Your task to perform on an android device: set the timer Image 0: 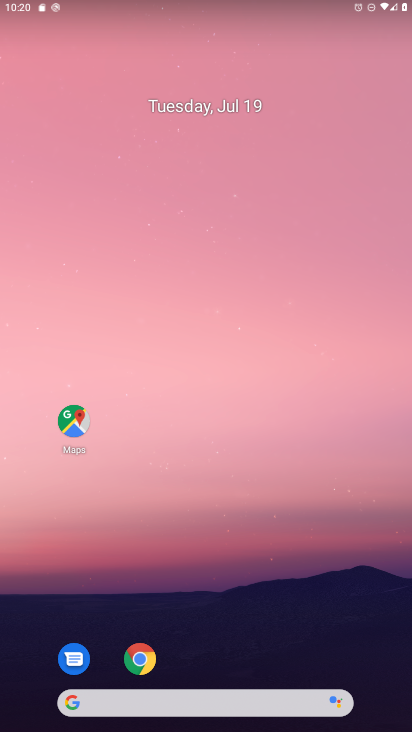
Step 0: drag from (183, 325) to (176, 164)
Your task to perform on an android device: set the timer Image 1: 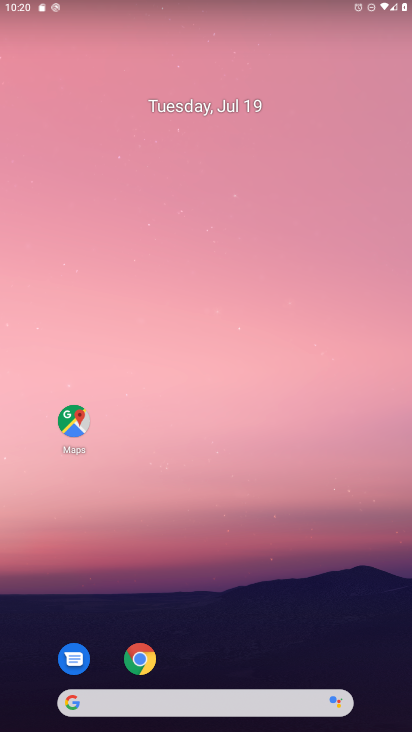
Step 1: drag from (252, 587) to (259, 163)
Your task to perform on an android device: set the timer Image 2: 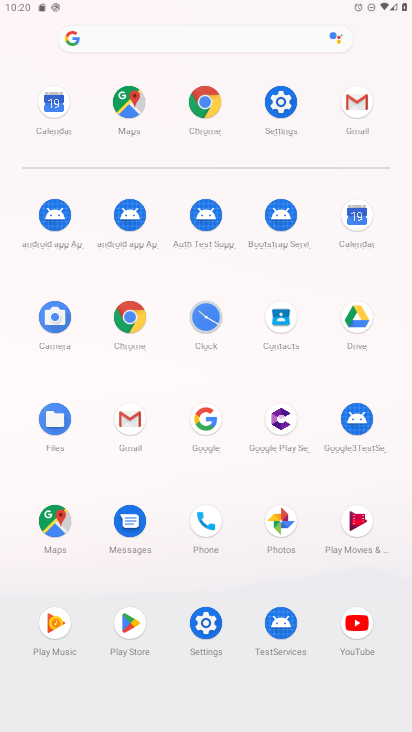
Step 2: click (199, 320)
Your task to perform on an android device: set the timer Image 3: 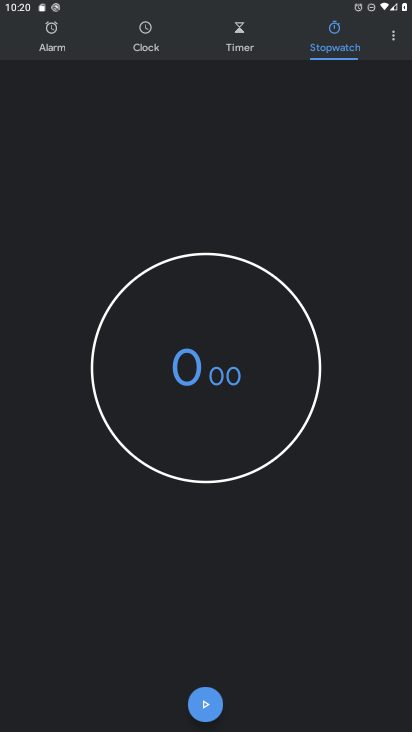
Step 3: click (245, 20)
Your task to perform on an android device: set the timer Image 4: 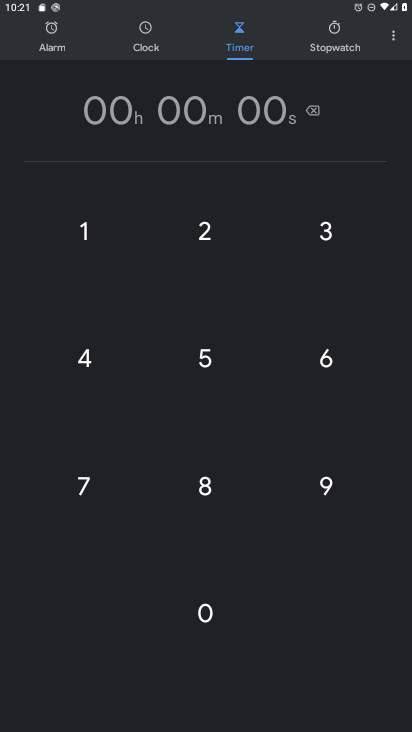
Step 4: click (224, 101)
Your task to perform on an android device: set the timer Image 5: 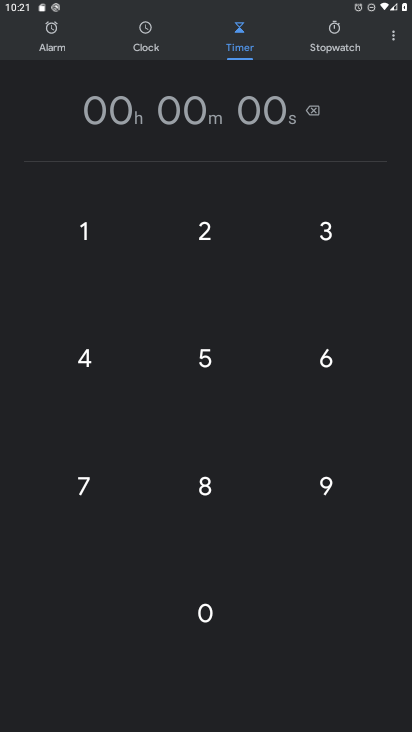
Step 5: type "949494949 "
Your task to perform on an android device: set the timer Image 6: 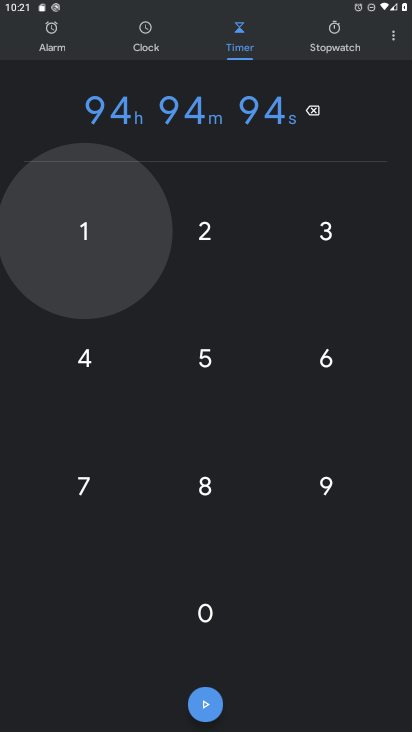
Step 6: click (201, 702)
Your task to perform on an android device: set the timer Image 7: 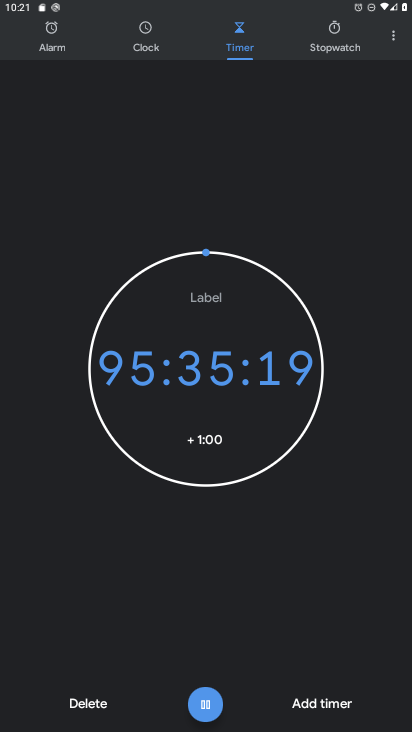
Step 7: task complete